Your task to perform on an android device: Open Reddit.com Image 0: 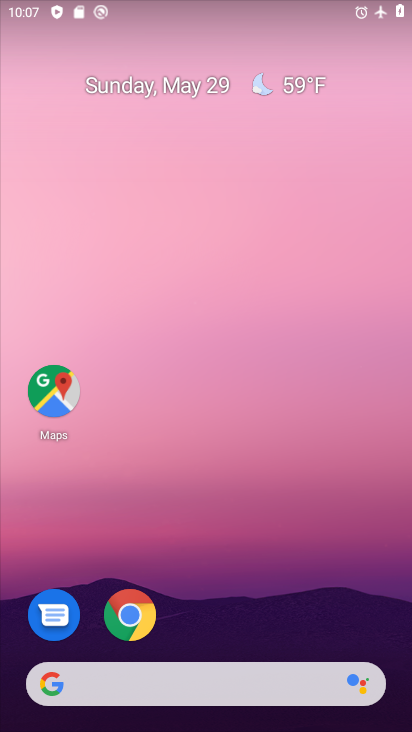
Step 0: drag from (213, 612) to (221, 187)
Your task to perform on an android device: Open Reddit.com Image 1: 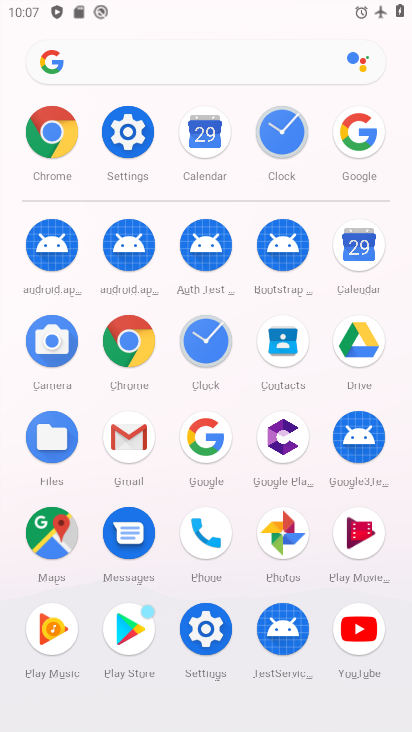
Step 1: click (359, 142)
Your task to perform on an android device: Open Reddit.com Image 2: 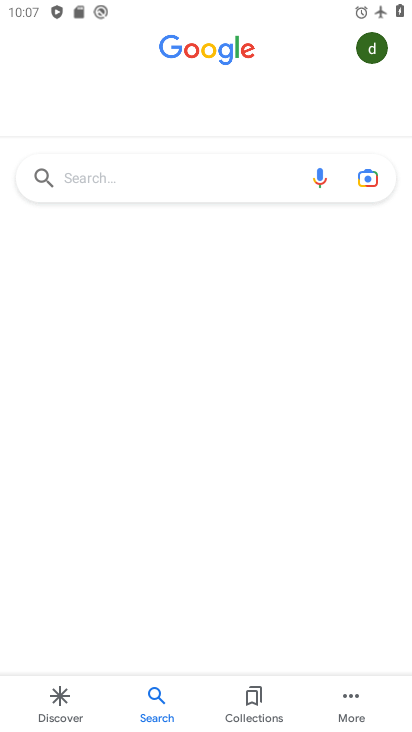
Step 2: click (135, 177)
Your task to perform on an android device: Open Reddit.com Image 3: 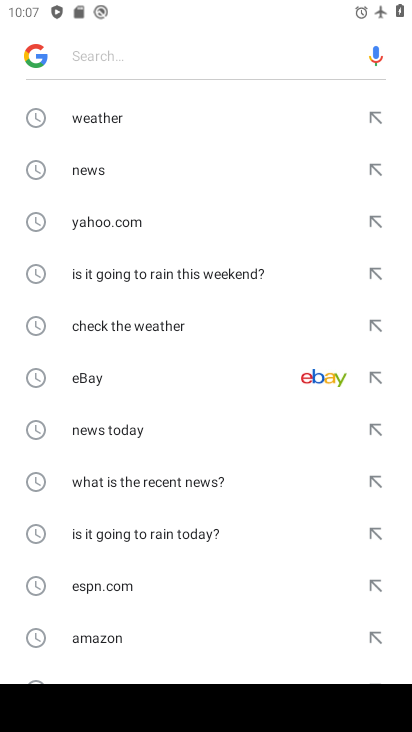
Step 3: drag from (230, 630) to (208, 36)
Your task to perform on an android device: Open Reddit.com Image 4: 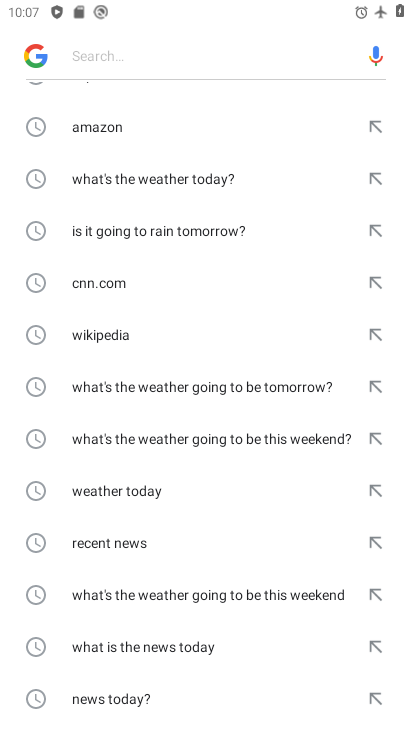
Step 4: drag from (178, 659) to (231, 80)
Your task to perform on an android device: Open Reddit.com Image 5: 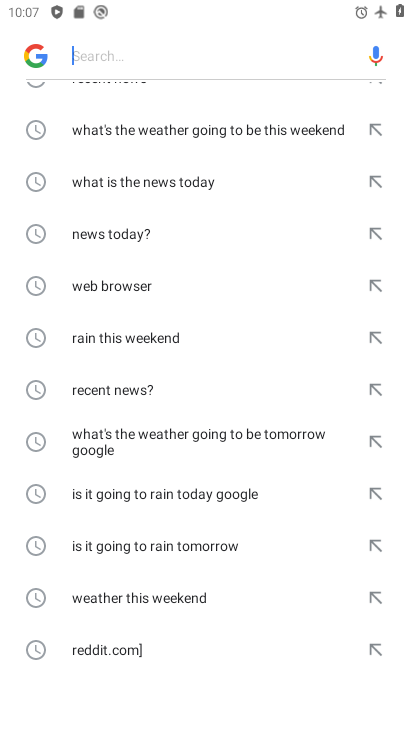
Step 5: type "reddit.com"
Your task to perform on an android device: Open Reddit.com Image 6: 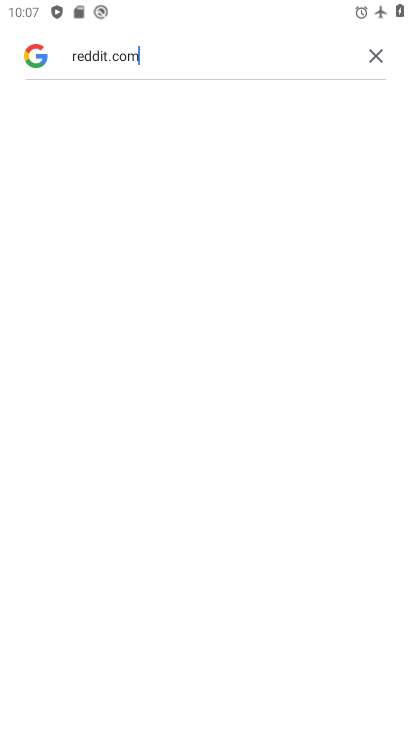
Step 6: task complete